Your task to perform on an android device: find which apps use the phone's location Image 0: 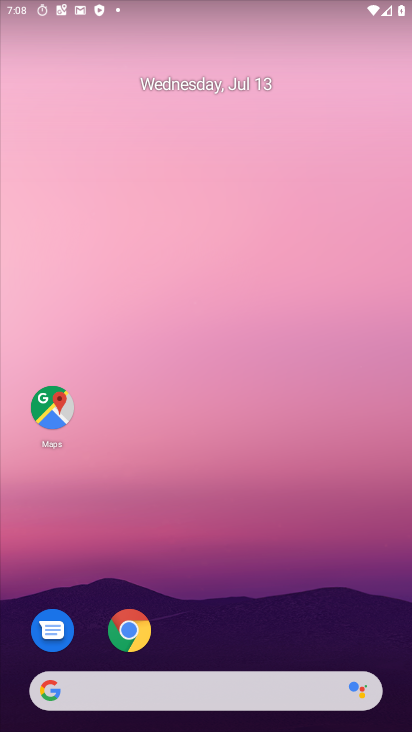
Step 0: click (289, 18)
Your task to perform on an android device: find which apps use the phone's location Image 1: 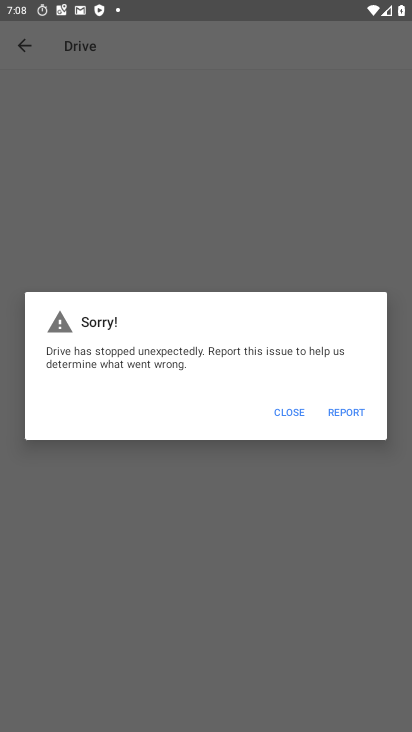
Step 1: press home button
Your task to perform on an android device: find which apps use the phone's location Image 2: 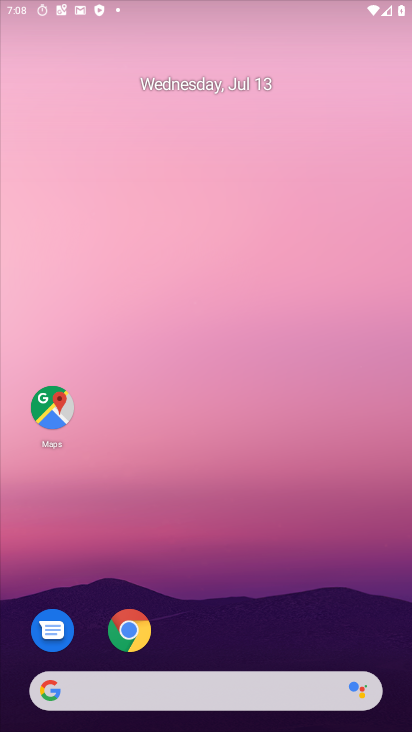
Step 2: drag from (323, 662) to (251, 136)
Your task to perform on an android device: find which apps use the phone's location Image 3: 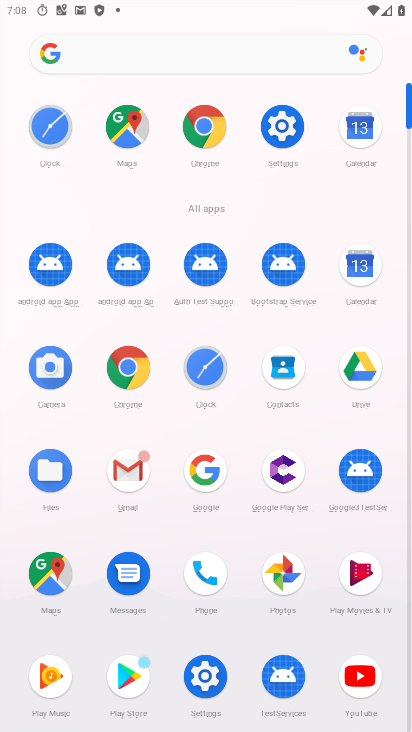
Step 3: click (267, 141)
Your task to perform on an android device: find which apps use the phone's location Image 4: 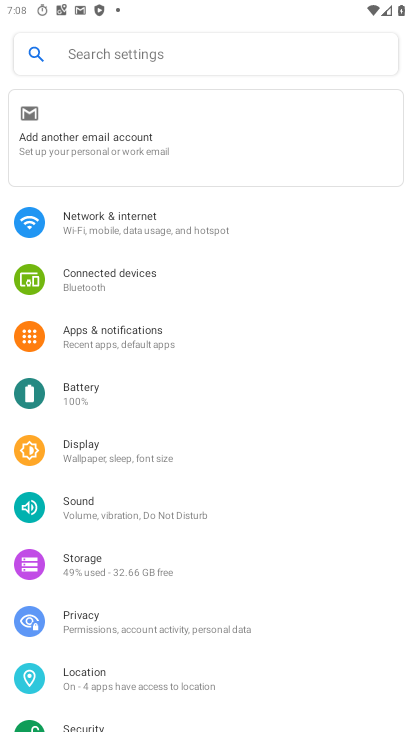
Step 4: click (102, 673)
Your task to perform on an android device: find which apps use the phone's location Image 5: 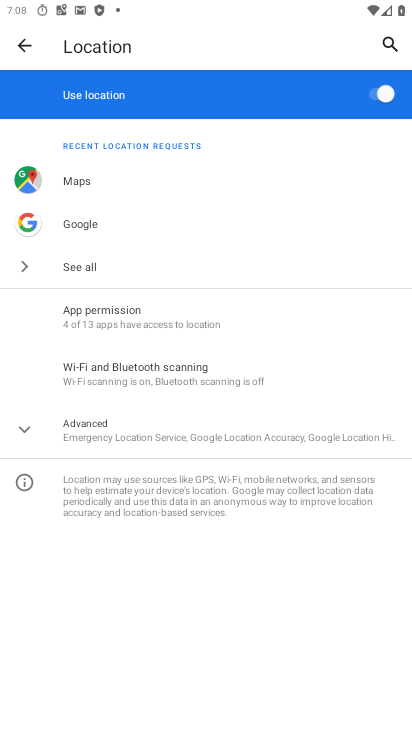
Step 5: click (154, 311)
Your task to perform on an android device: find which apps use the phone's location Image 6: 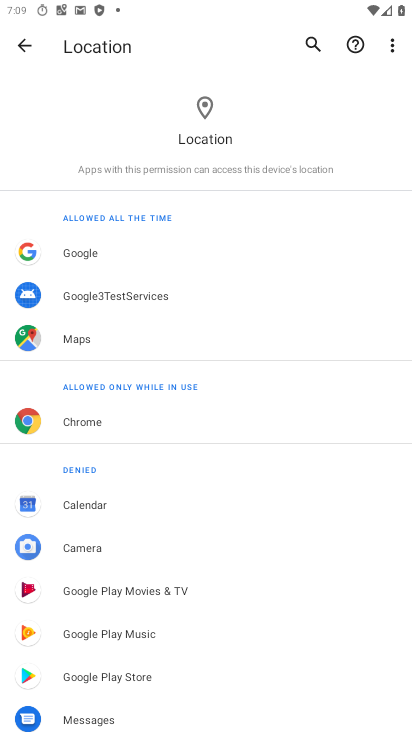
Step 6: drag from (81, 660) to (62, 246)
Your task to perform on an android device: find which apps use the phone's location Image 7: 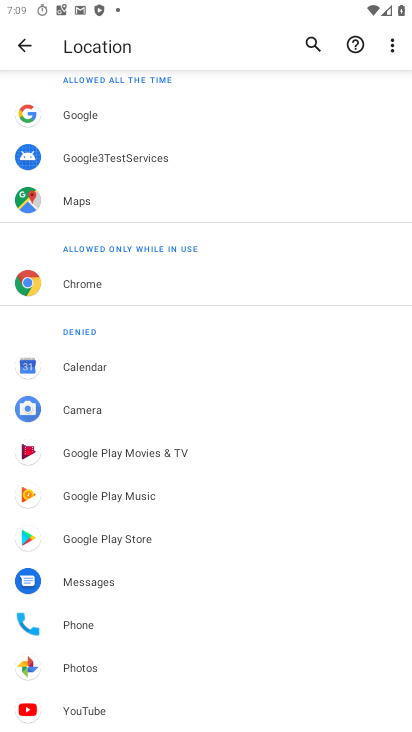
Step 7: click (67, 622)
Your task to perform on an android device: find which apps use the phone's location Image 8: 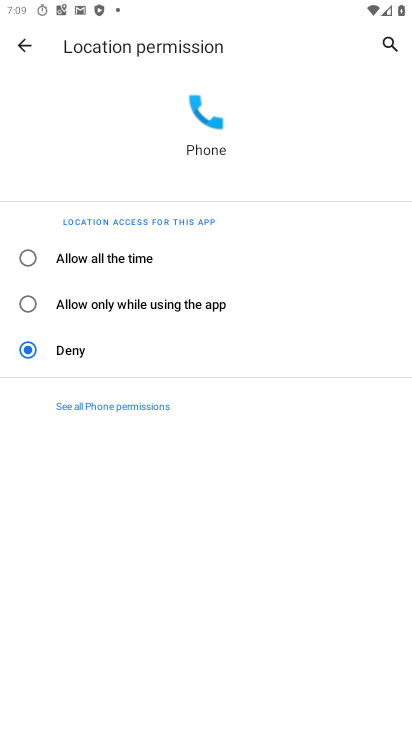
Step 8: click (64, 271)
Your task to perform on an android device: find which apps use the phone's location Image 9: 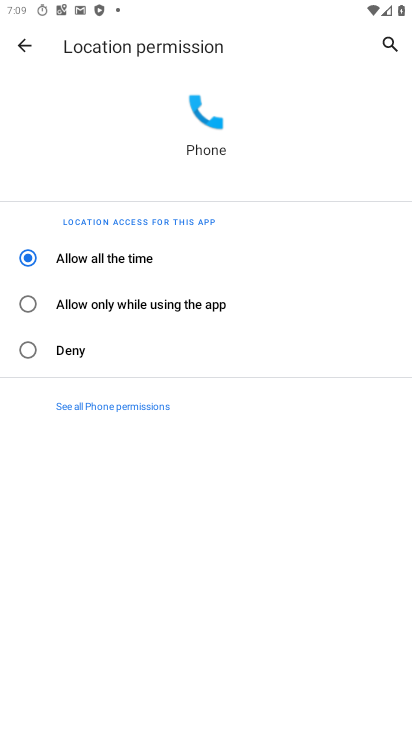
Step 9: task complete